Your task to perform on an android device: Clear the shopping cart on costco.com. Image 0: 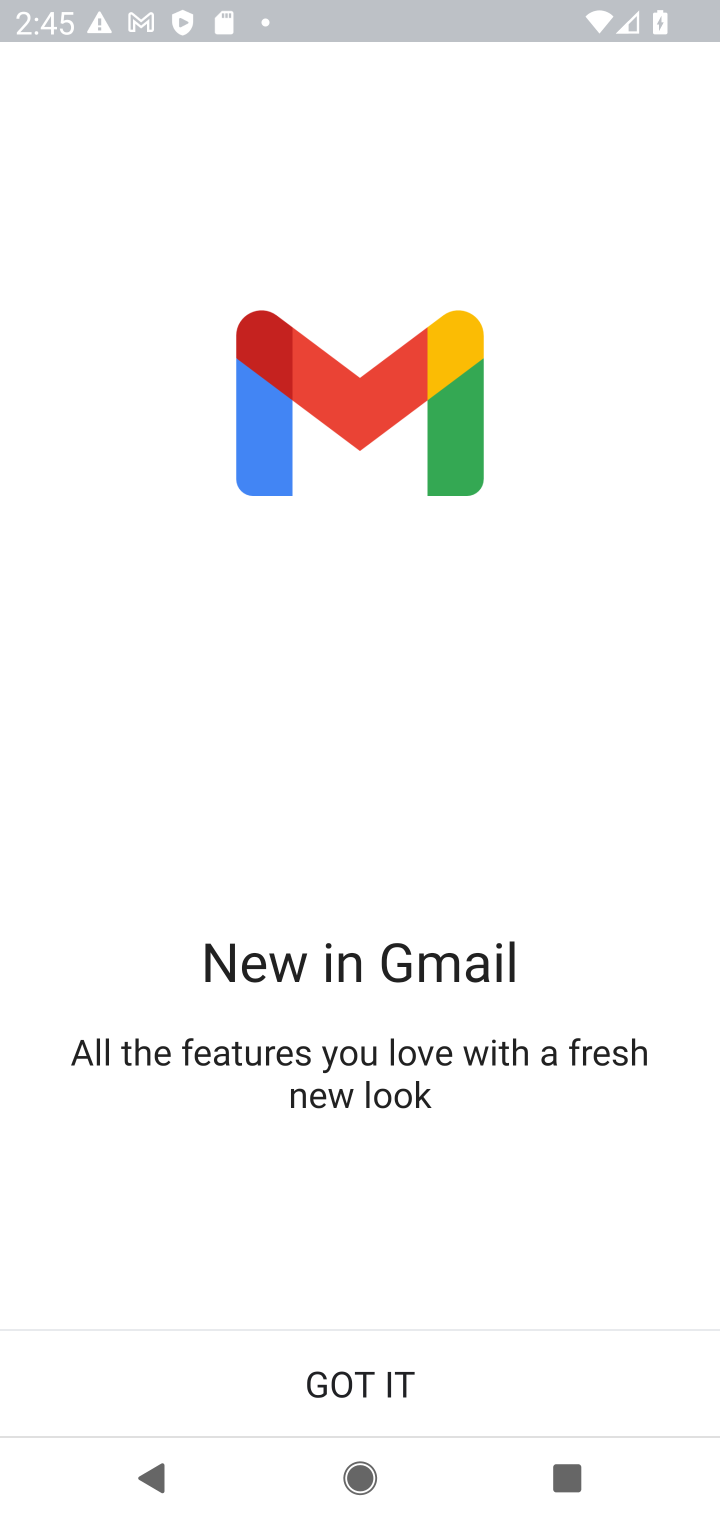
Step 0: press home button
Your task to perform on an android device: Clear the shopping cart on costco.com. Image 1: 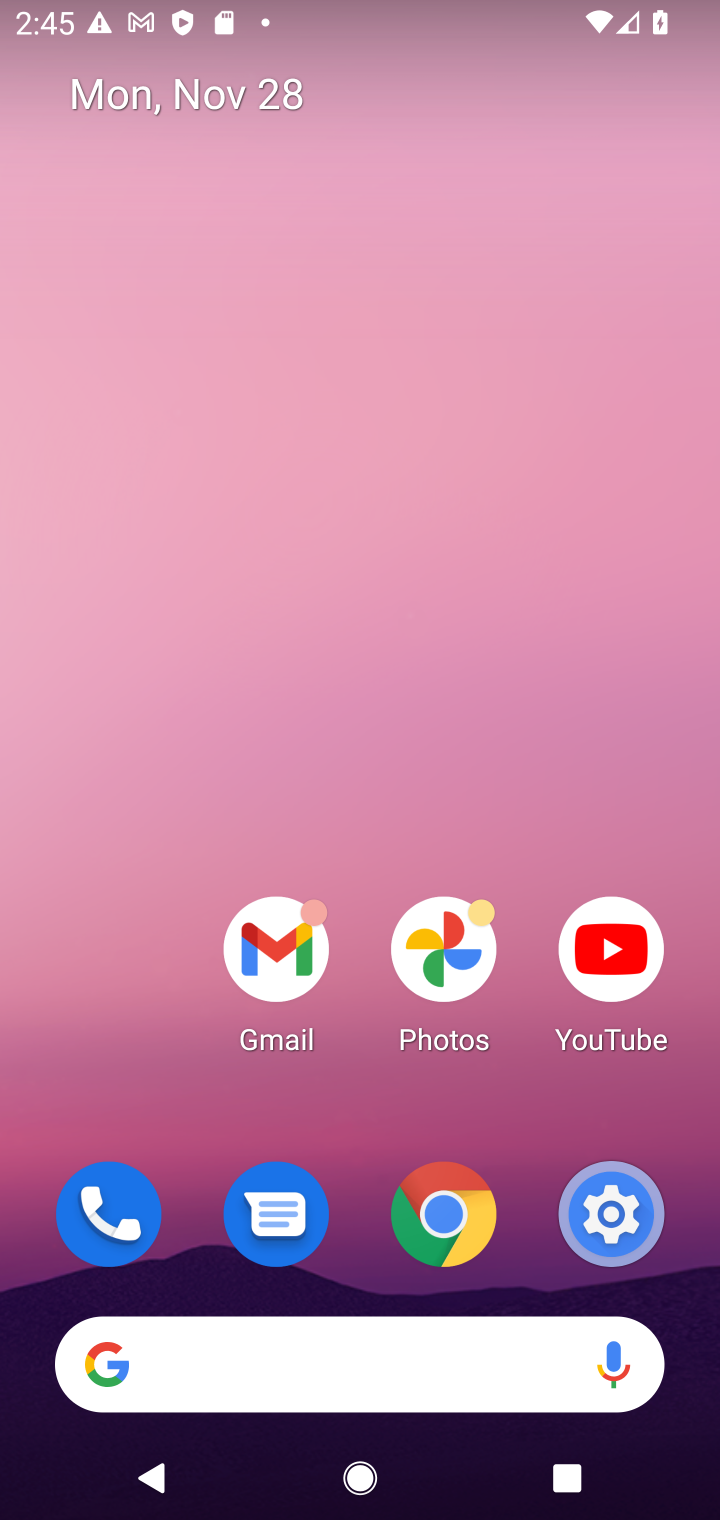
Step 1: click (390, 1394)
Your task to perform on an android device: Clear the shopping cart on costco.com. Image 2: 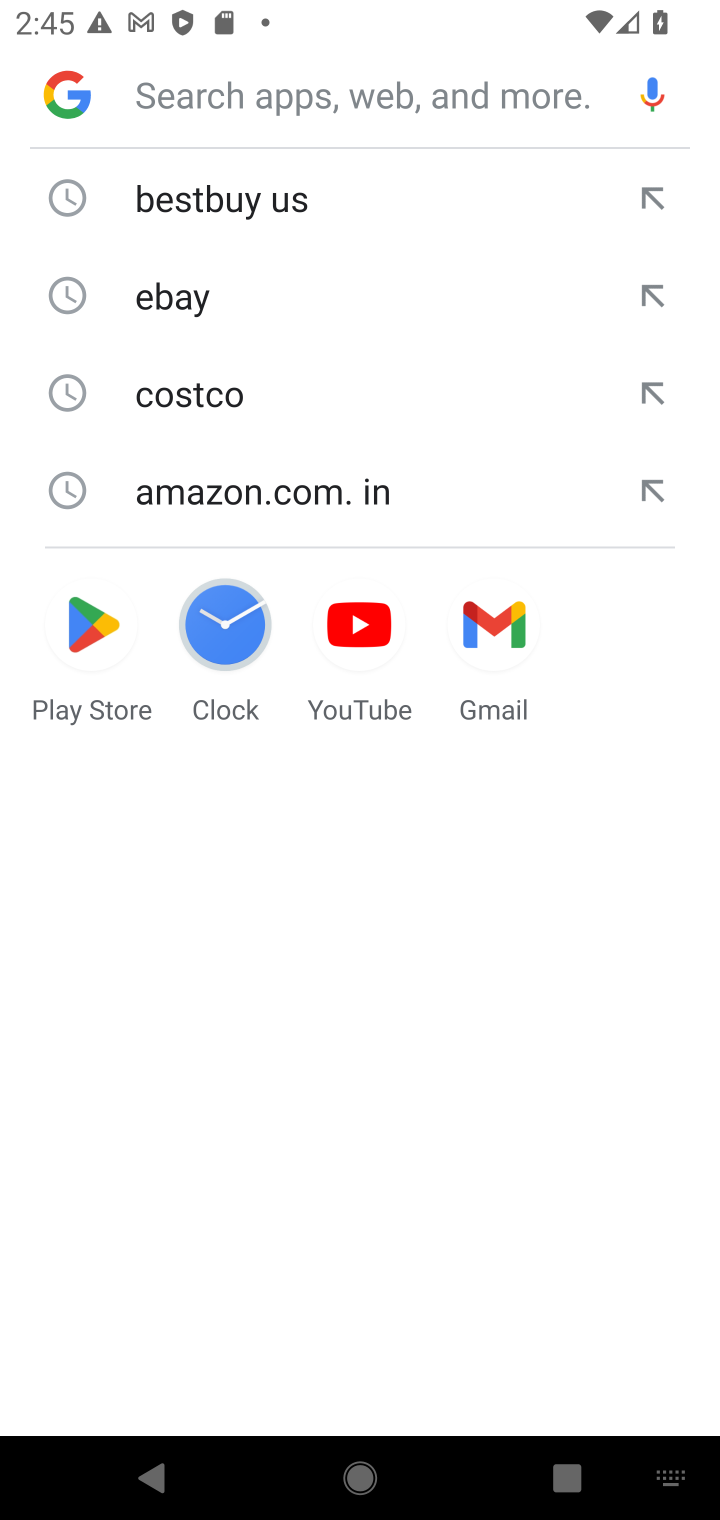
Step 2: type "costco.com"
Your task to perform on an android device: Clear the shopping cart on costco.com. Image 3: 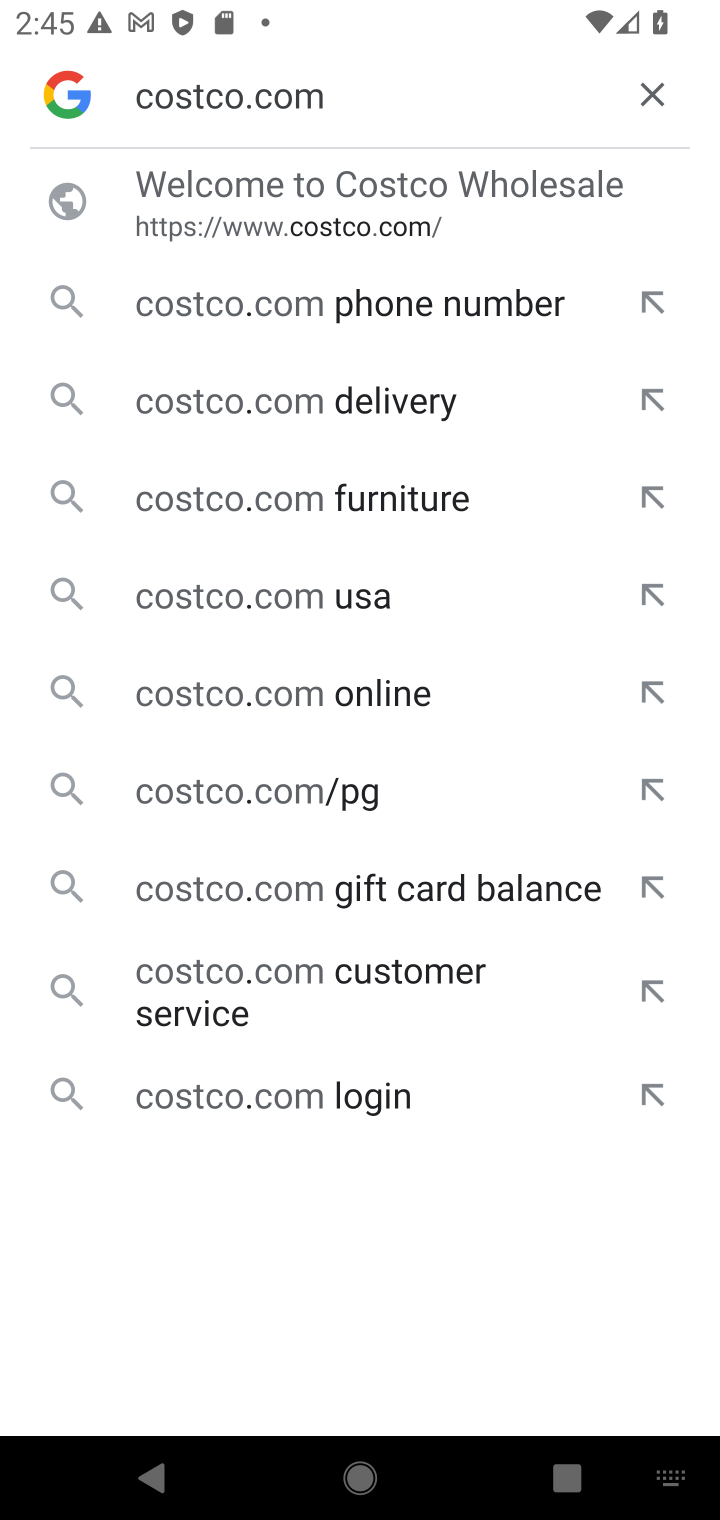
Step 3: click (306, 193)
Your task to perform on an android device: Clear the shopping cart on costco.com. Image 4: 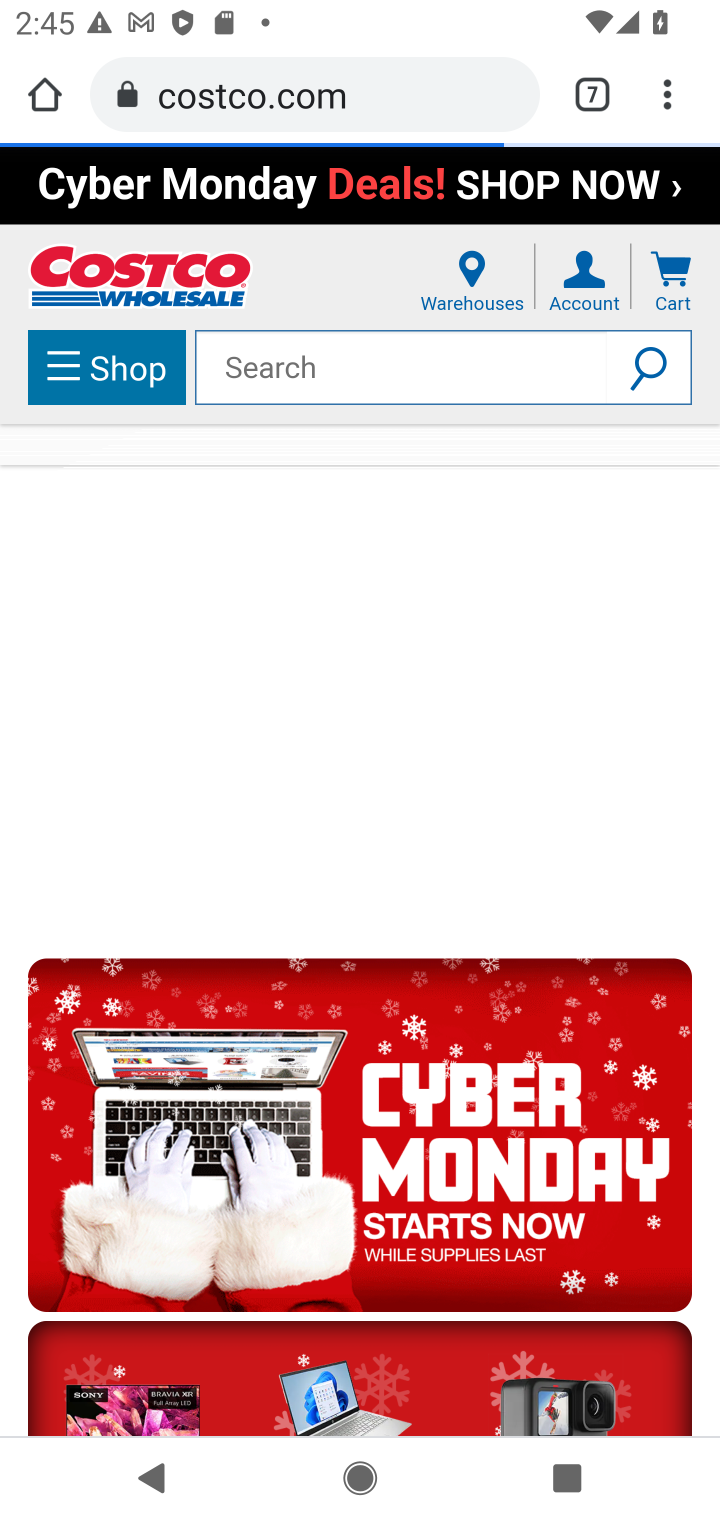
Step 4: click (255, 351)
Your task to perform on an android device: Clear the shopping cart on costco.com. Image 5: 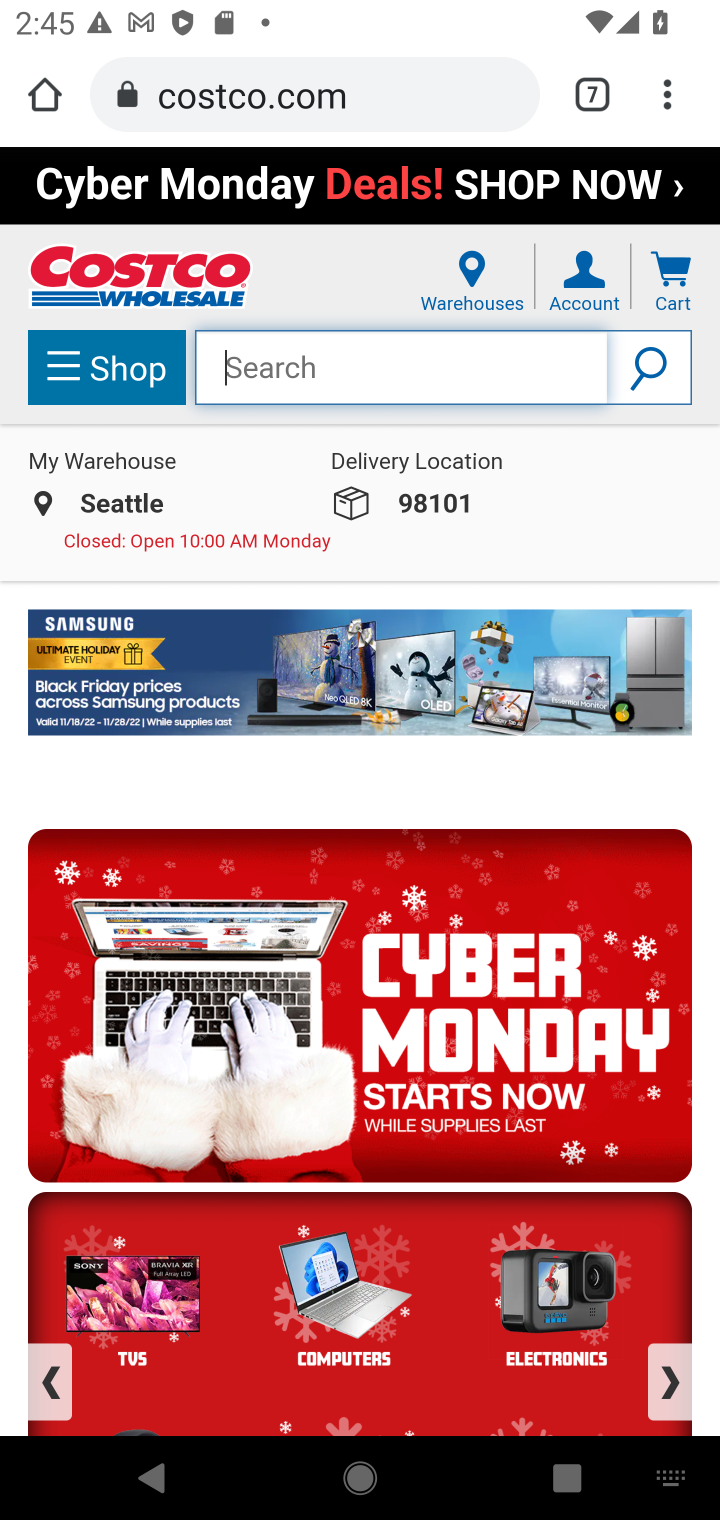
Step 5: type "clear"
Your task to perform on an android device: Clear the shopping cart on costco.com. Image 6: 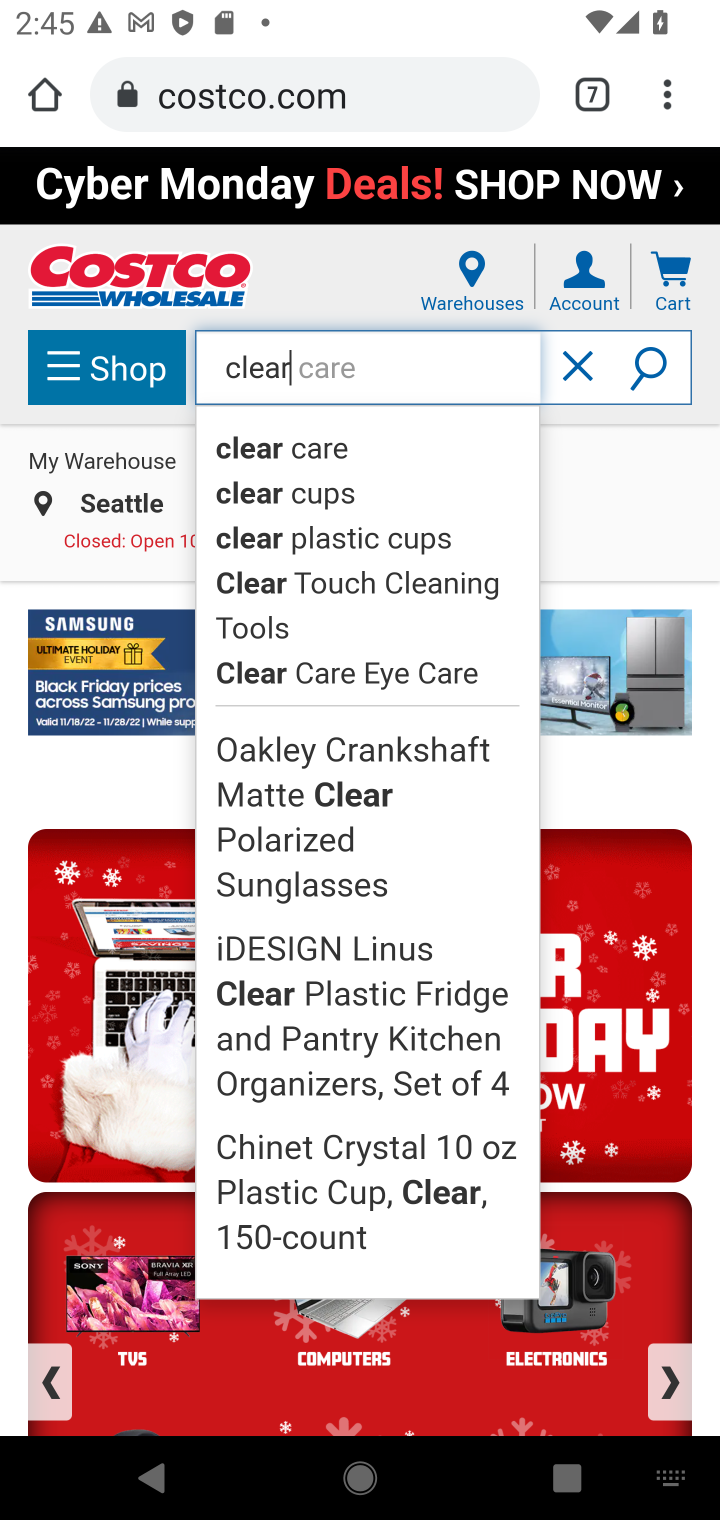
Step 6: click (562, 294)
Your task to perform on an android device: Clear the shopping cart on costco.com. Image 7: 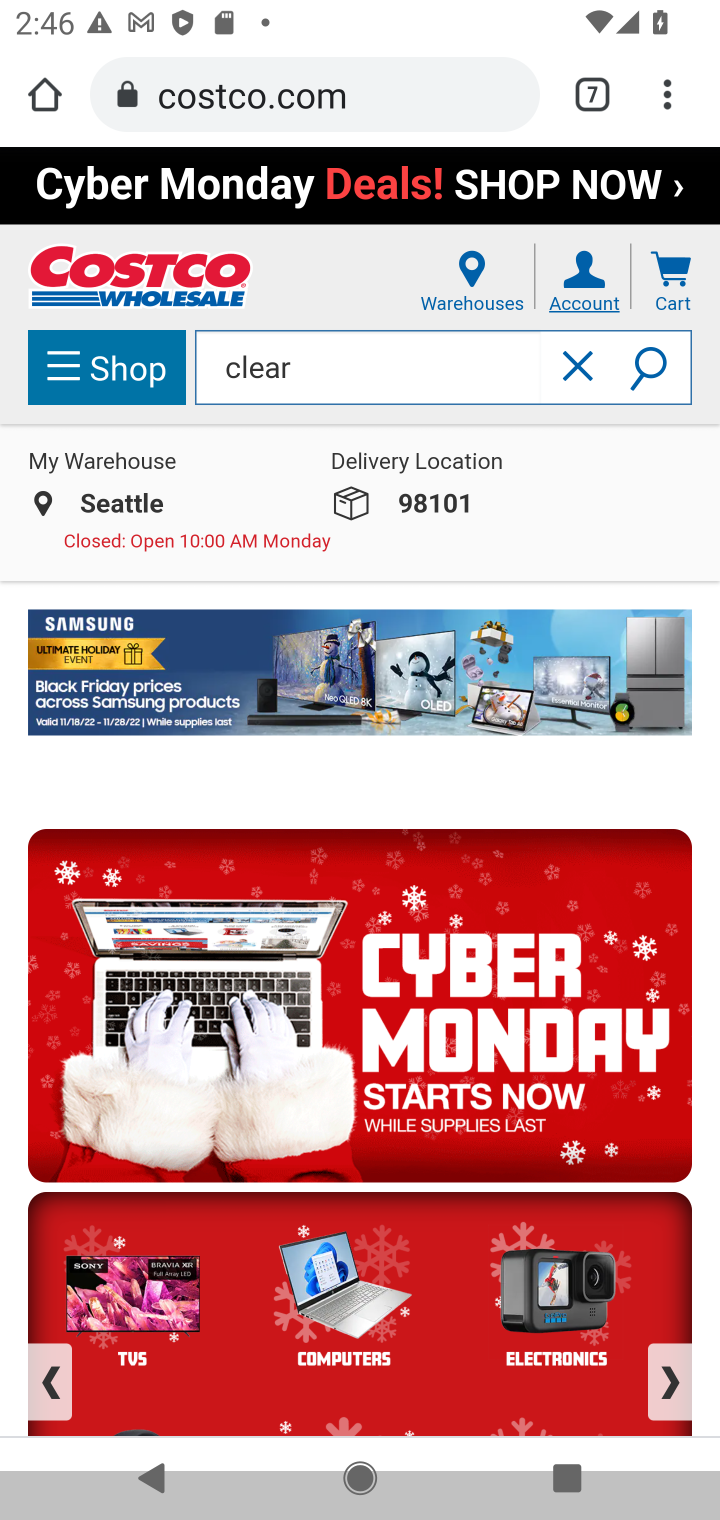
Step 7: task complete